Your task to perform on an android device: remove spam from my inbox in the gmail app Image 0: 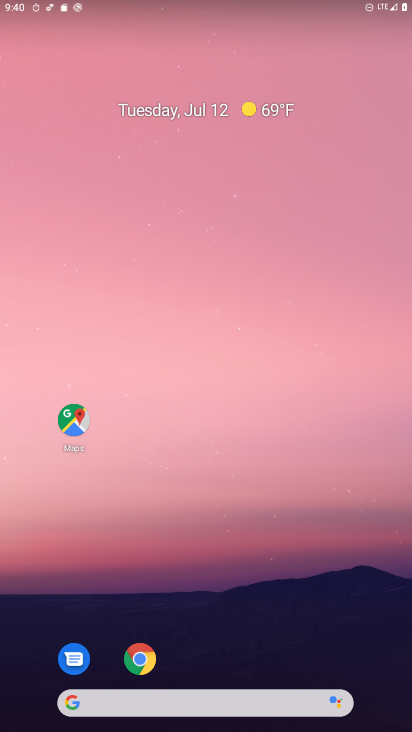
Step 0: drag from (221, 721) to (225, 131)
Your task to perform on an android device: remove spam from my inbox in the gmail app Image 1: 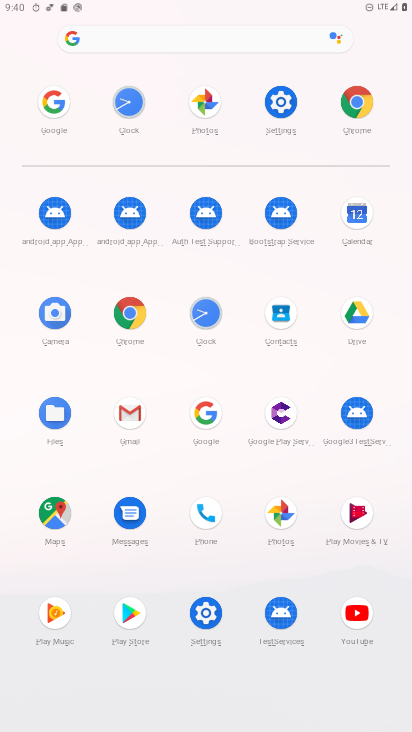
Step 1: click (136, 407)
Your task to perform on an android device: remove spam from my inbox in the gmail app Image 2: 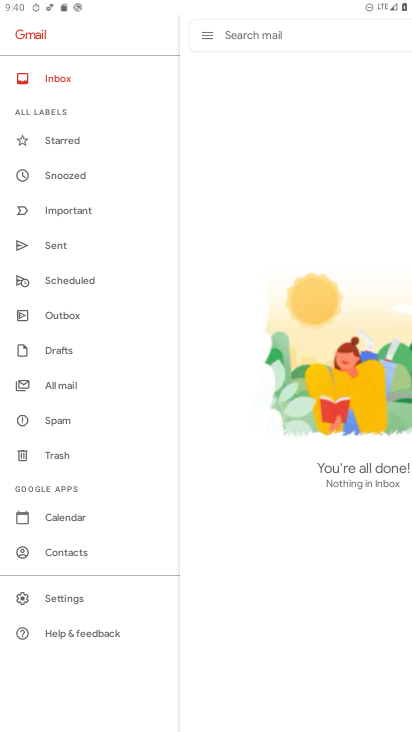
Step 2: task complete